Your task to perform on an android device: Search for Italian restaurants on Maps Image 0: 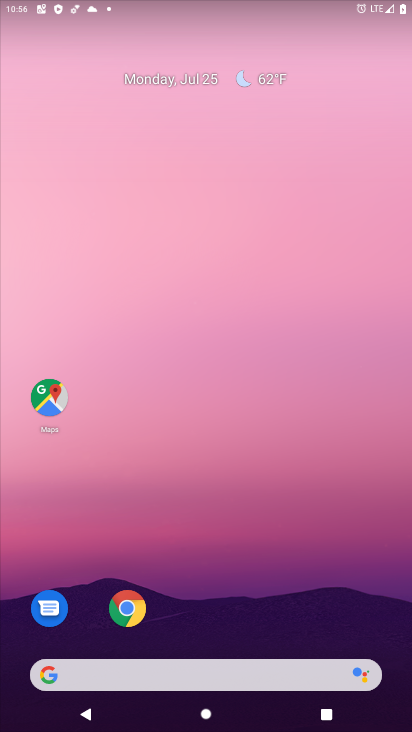
Step 0: click (54, 404)
Your task to perform on an android device: Search for Italian restaurants on Maps Image 1: 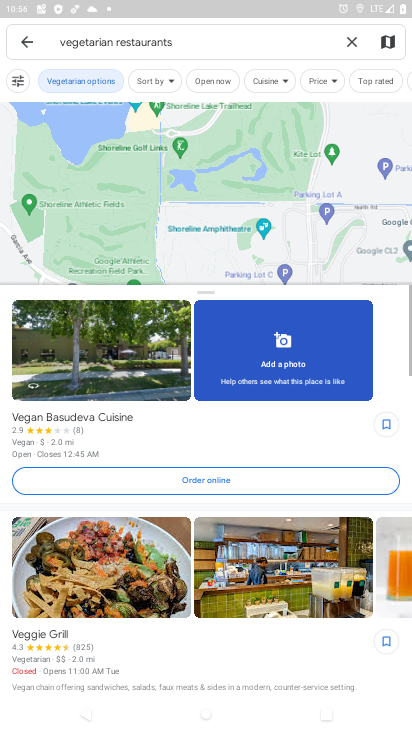
Step 1: click (92, 40)
Your task to perform on an android device: Search for Italian restaurants on Maps Image 2: 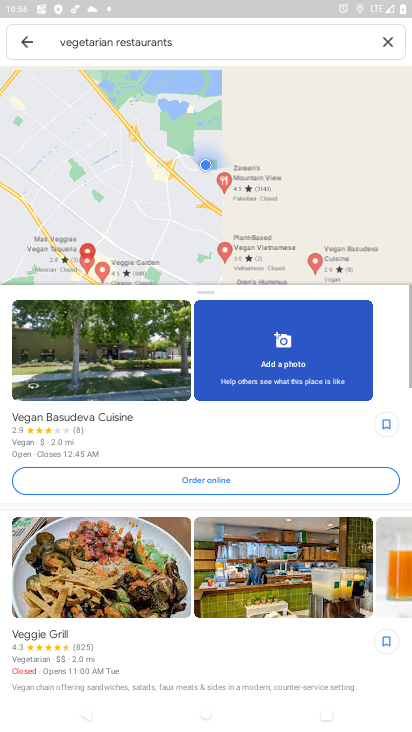
Step 2: click (90, 42)
Your task to perform on an android device: Search for Italian restaurants on Maps Image 3: 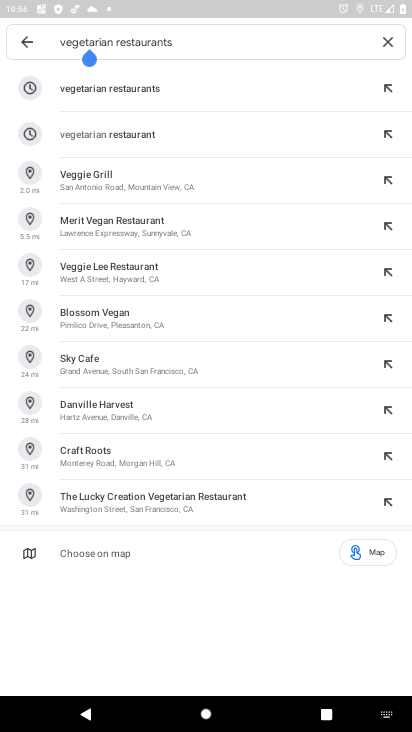
Step 3: click (90, 42)
Your task to perform on an android device: Search for Italian restaurants on Maps Image 4: 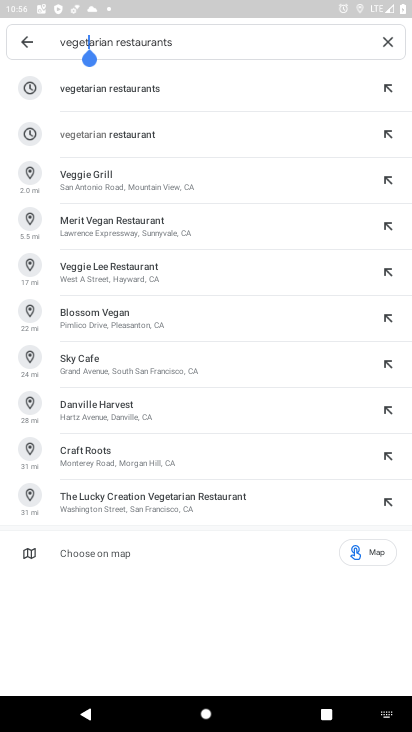
Step 4: click (90, 42)
Your task to perform on an android device: Search for Italian restaurants on Maps Image 5: 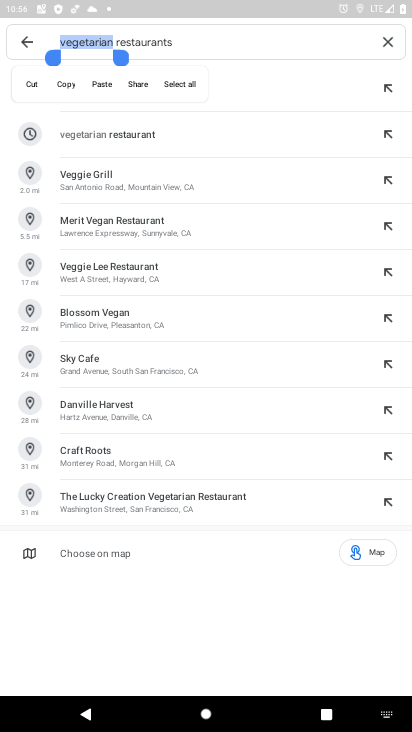
Step 5: type "italian"
Your task to perform on an android device: Search for Italian restaurants on Maps Image 6: 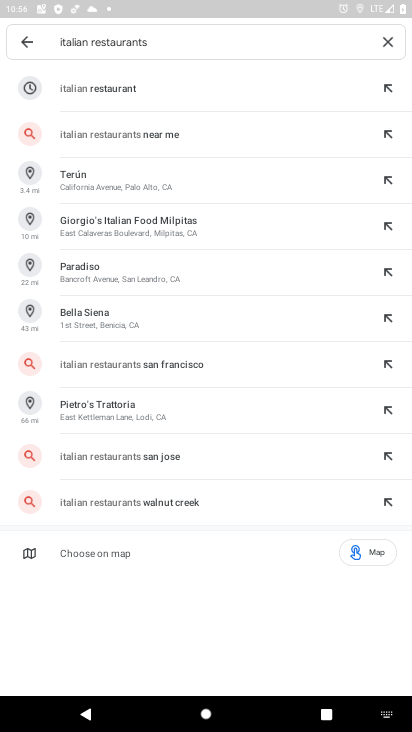
Step 6: click (113, 93)
Your task to perform on an android device: Search for Italian restaurants on Maps Image 7: 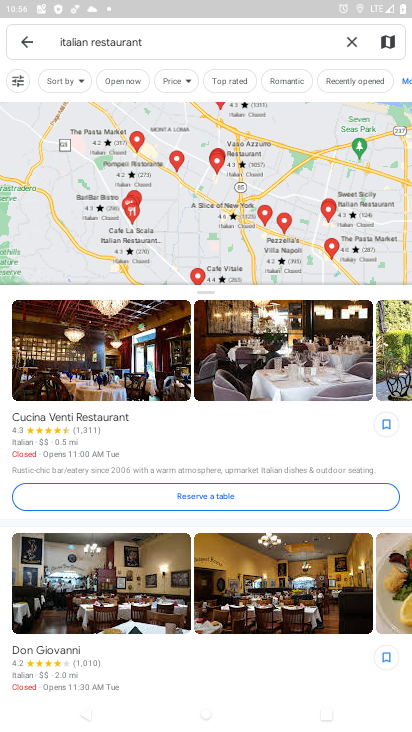
Step 7: task complete